Your task to perform on an android device: Search for sushi restaurants on Maps Image 0: 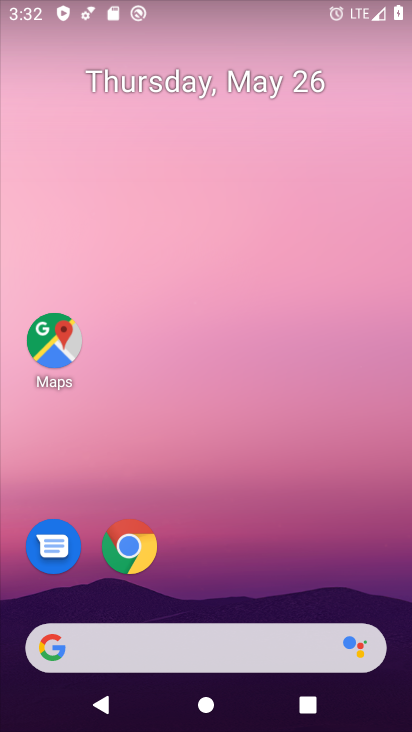
Step 0: click (55, 332)
Your task to perform on an android device: Search for sushi restaurants on Maps Image 1: 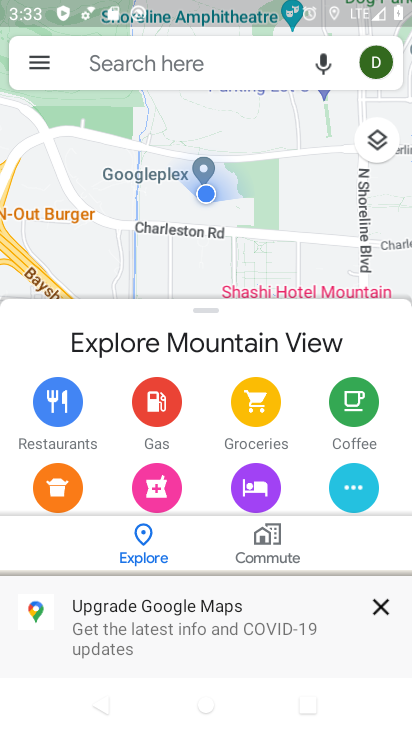
Step 1: click (174, 71)
Your task to perform on an android device: Search for sushi restaurants on Maps Image 2: 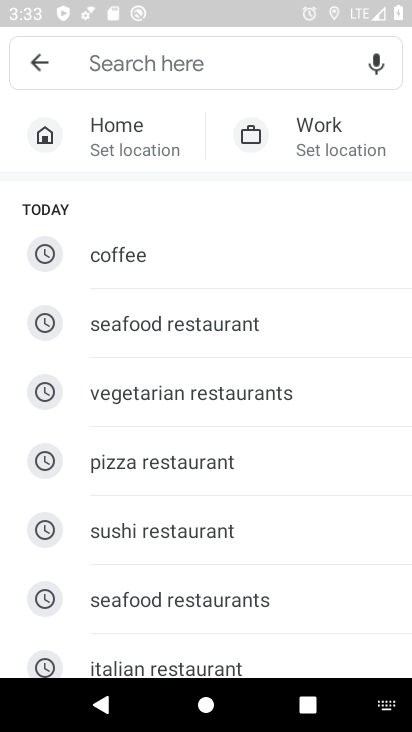
Step 2: click (169, 526)
Your task to perform on an android device: Search for sushi restaurants on Maps Image 3: 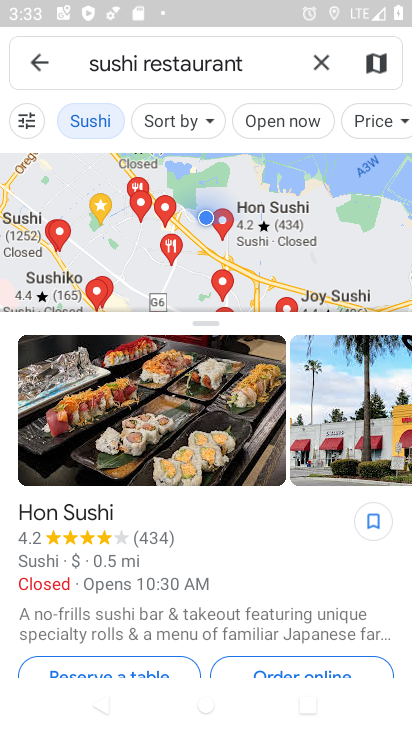
Step 3: task complete